Your task to perform on an android device: What's on my calendar tomorrow? Image 0: 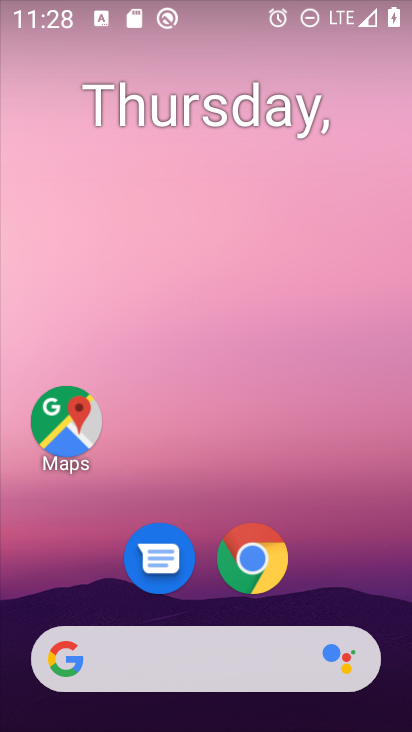
Step 0: drag from (392, 585) to (319, 143)
Your task to perform on an android device: What's on my calendar tomorrow? Image 1: 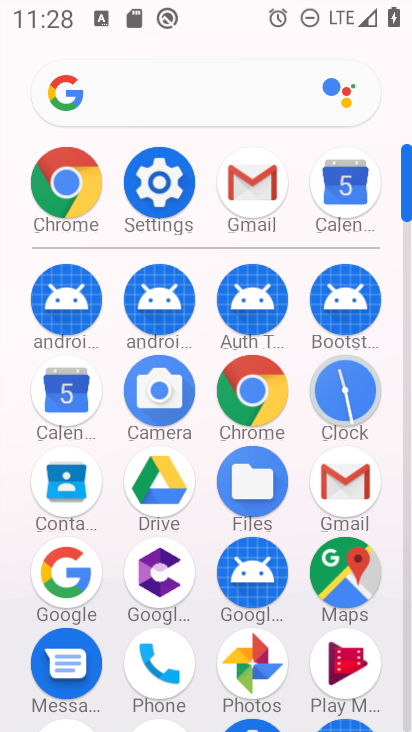
Step 1: click (59, 393)
Your task to perform on an android device: What's on my calendar tomorrow? Image 2: 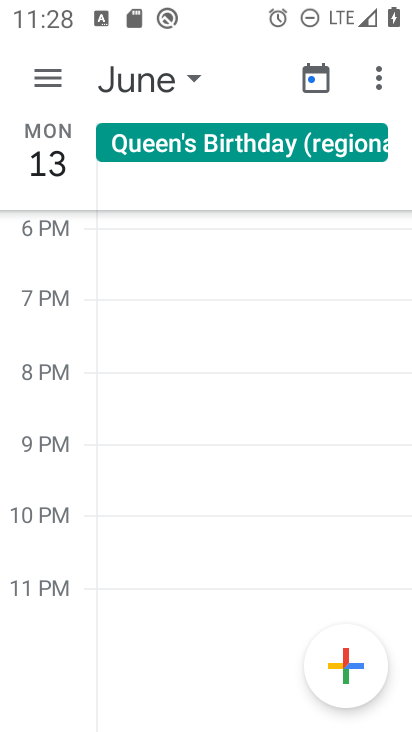
Step 2: click (186, 77)
Your task to perform on an android device: What's on my calendar tomorrow? Image 3: 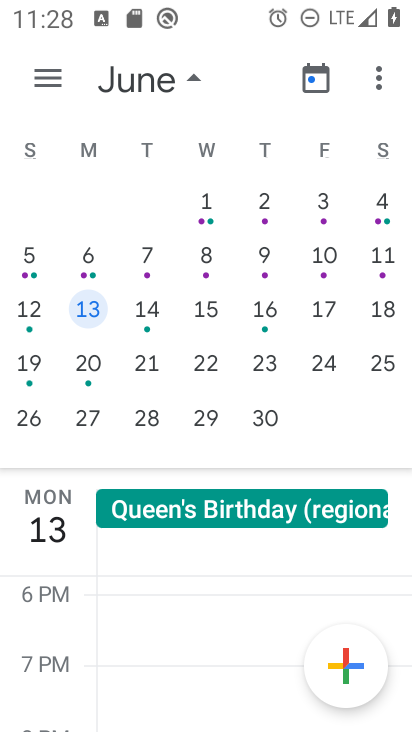
Step 3: drag from (40, 316) to (343, 297)
Your task to perform on an android device: What's on my calendar tomorrow? Image 4: 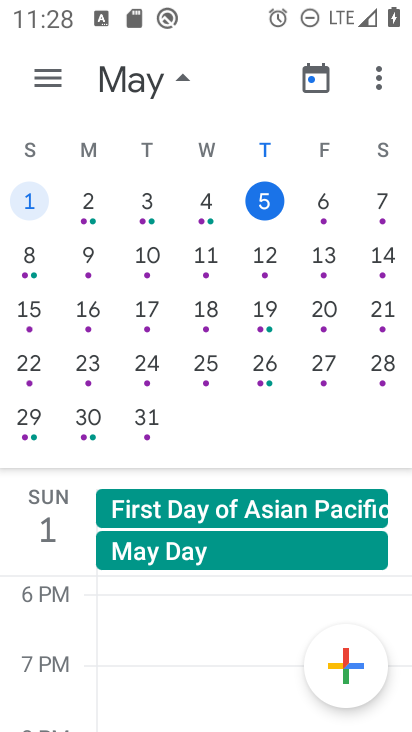
Step 4: click (323, 204)
Your task to perform on an android device: What's on my calendar tomorrow? Image 5: 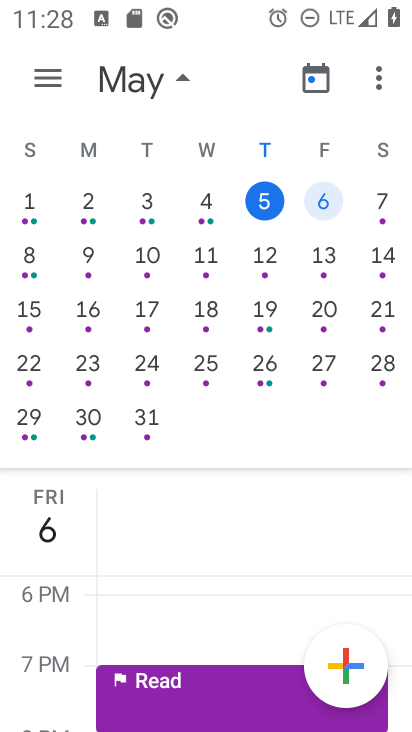
Step 5: task complete